Your task to perform on an android device: open app "Walmart Shopping & Grocery" (install if not already installed) Image 0: 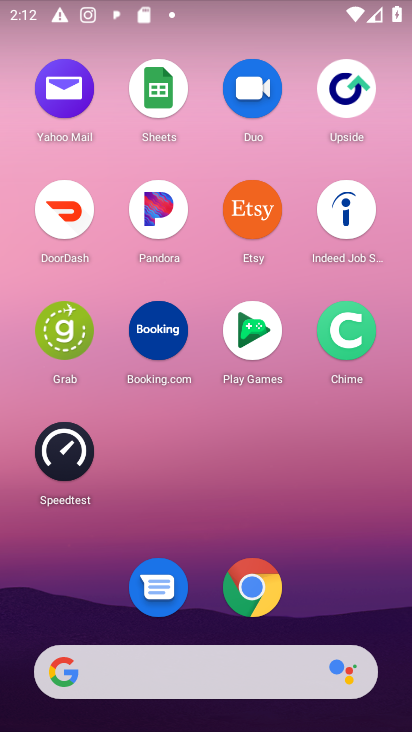
Step 0: press home button
Your task to perform on an android device: open app "Walmart Shopping & Grocery" (install if not already installed) Image 1: 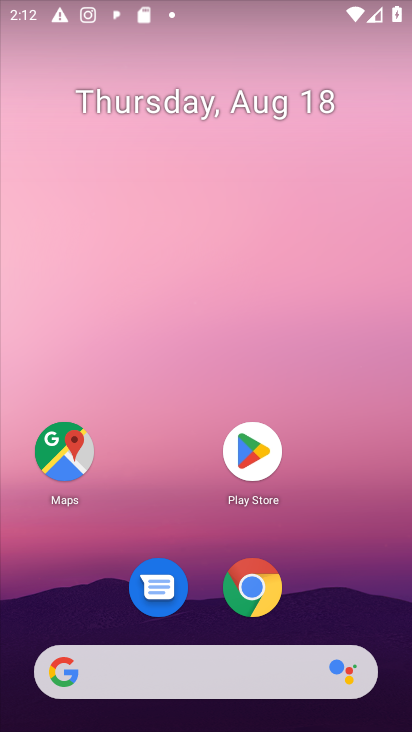
Step 1: click (247, 446)
Your task to perform on an android device: open app "Walmart Shopping & Grocery" (install if not already installed) Image 2: 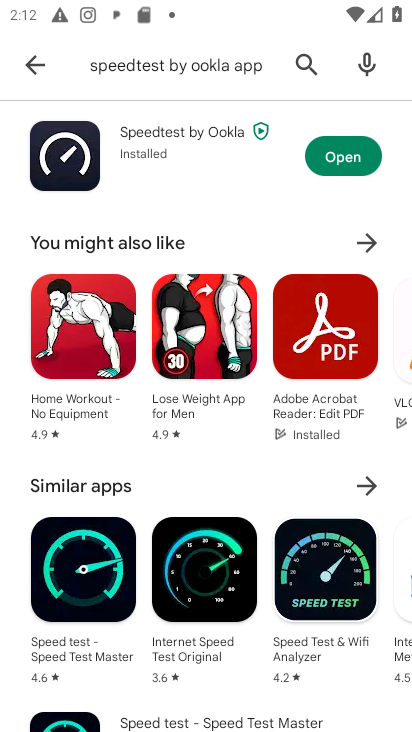
Step 2: click (306, 76)
Your task to perform on an android device: open app "Walmart Shopping & Grocery" (install if not already installed) Image 3: 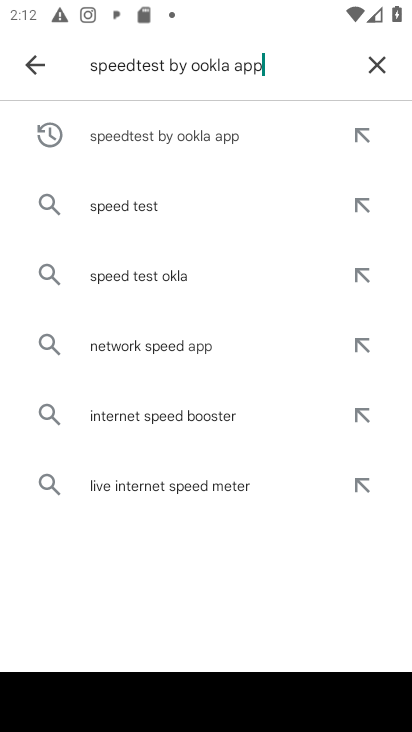
Step 3: click (367, 60)
Your task to perform on an android device: open app "Walmart Shopping & Grocery" (install if not already installed) Image 4: 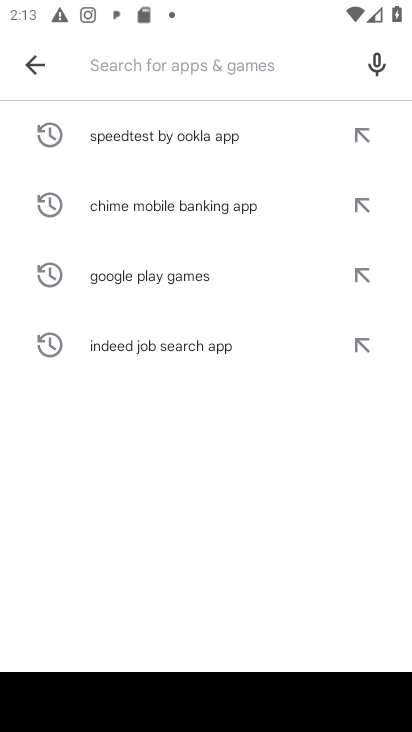
Step 4: type "Walmart Shopping & Grocery"
Your task to perform on an android device: open app "Walmart Shopping & Grocery" (install if not already installed) Image 5: 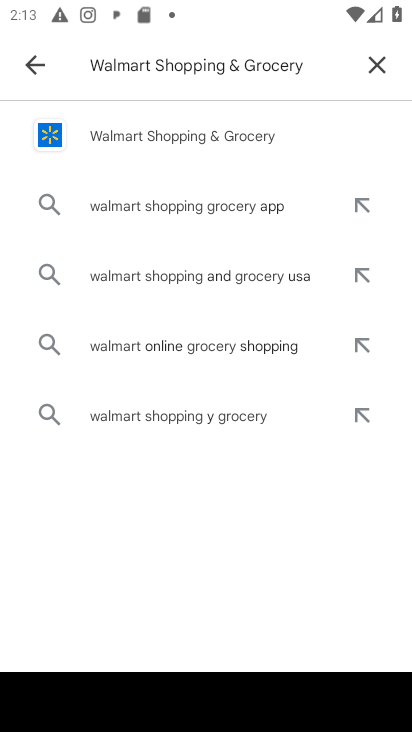
Step 5: click (209, 139)
Your task to perform on an android device: open app "Walmart Shopping & Grocery" (install if not already installed) Image 6: 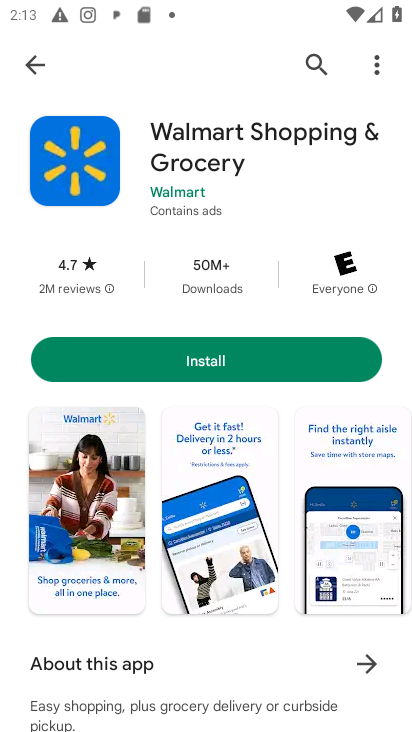
Step 6: click (222, 351)
Your task to perform on an android device: open app "Walmart Shopping & Grocery" (install if not already installed) Image 7: 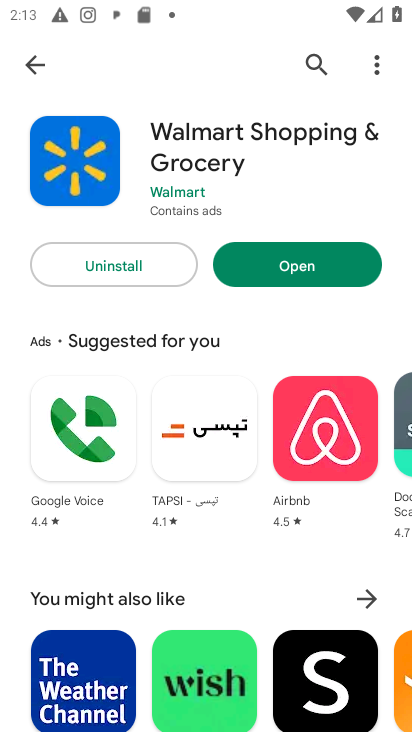
Step 7: click (307, 273)
Your task to perform on an android device: open app "Walmart Shopping & Grocery" (install if not already installed) Image 8: 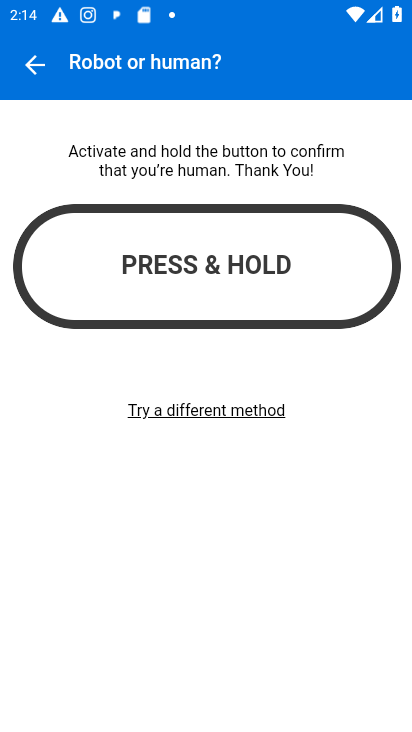
Step 8: task complete